Your task to perform on an android device: change the clock display to show seconds Image 0: 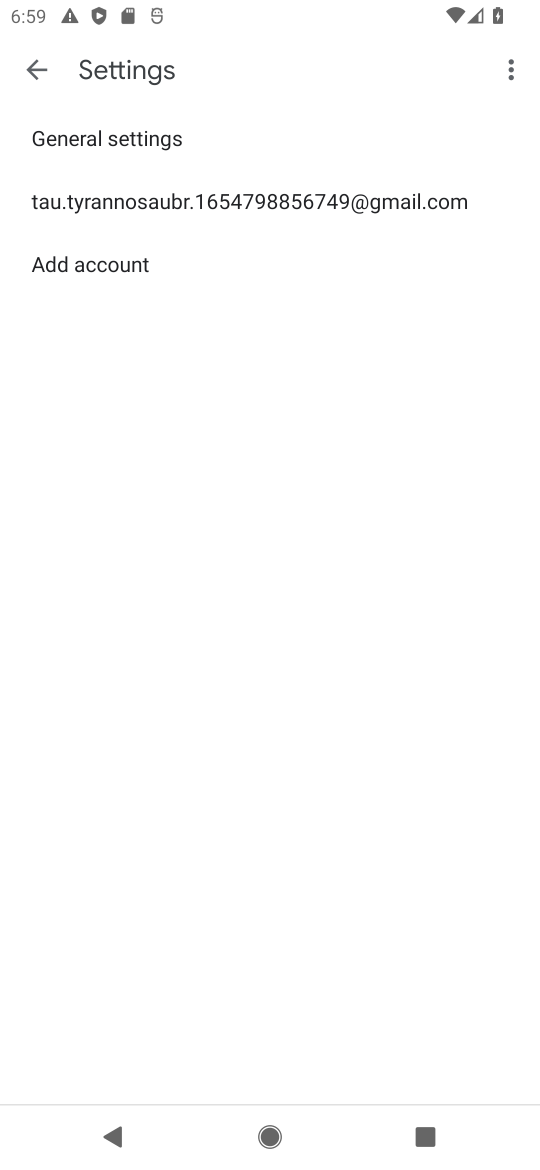
Step 0: press home button
Your task to perform on an android device: change the clock display to show seconds Image 1: 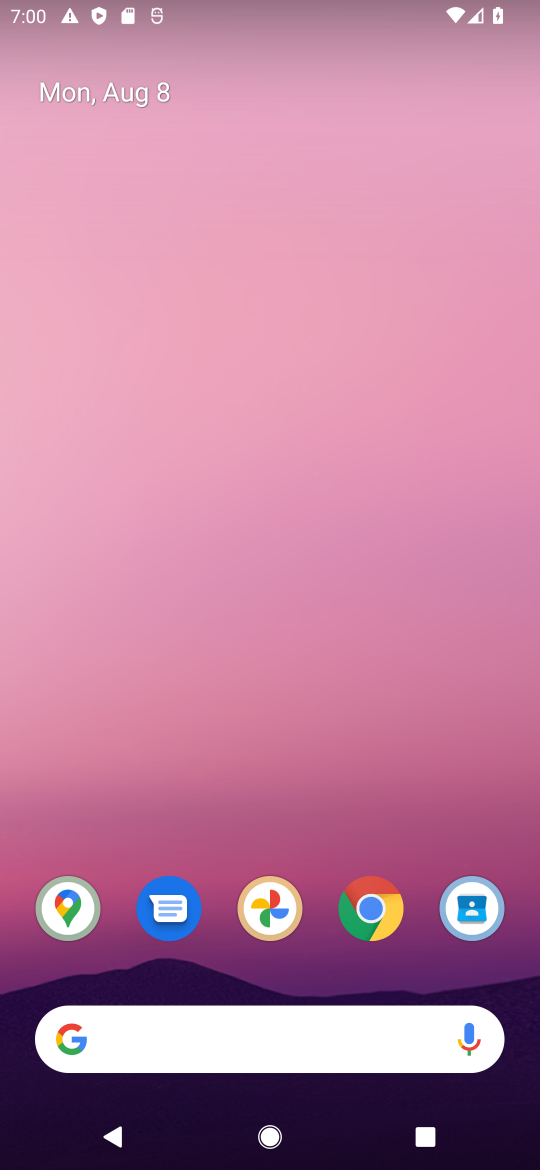
Step 1: drag from (266, 449) to (245, 215)
Your task to perform on an android device: change the clock display to show seconds Image 2: 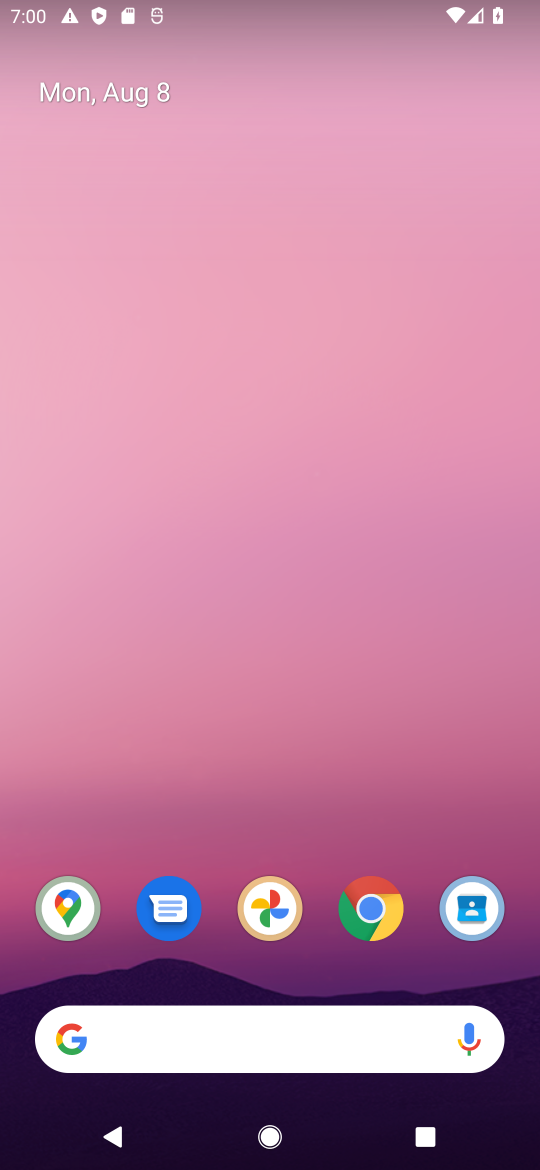
Step 2: drag from (211, 971) to (172, 338)
Your task to perform on an android device: change the clock display to show seconds Image 3: 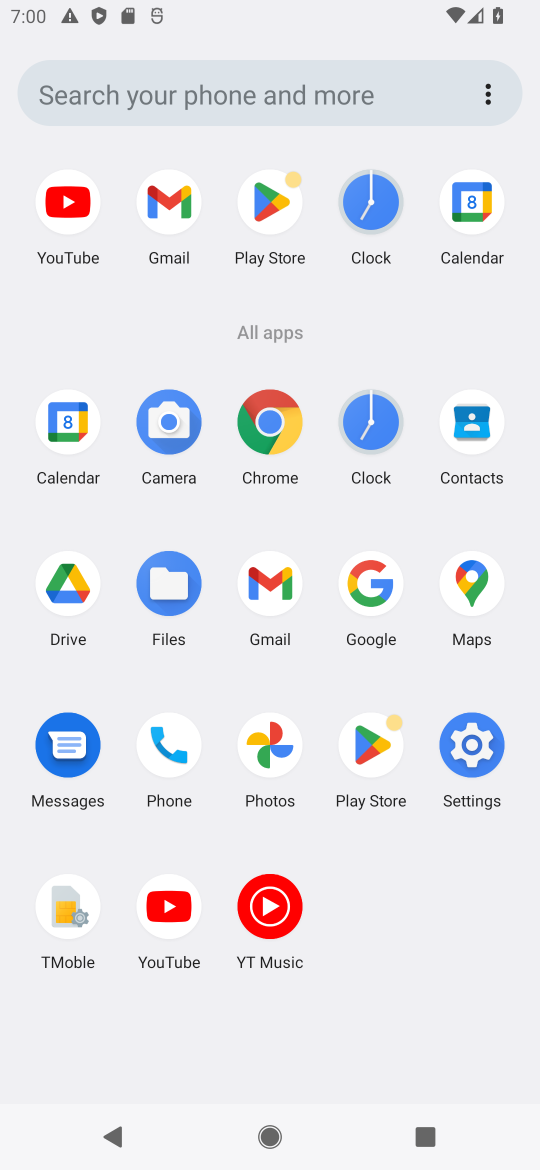
Step 3: click (380, 400)
Your task to perform on an android device: change the clock display to show seconds Image 4: 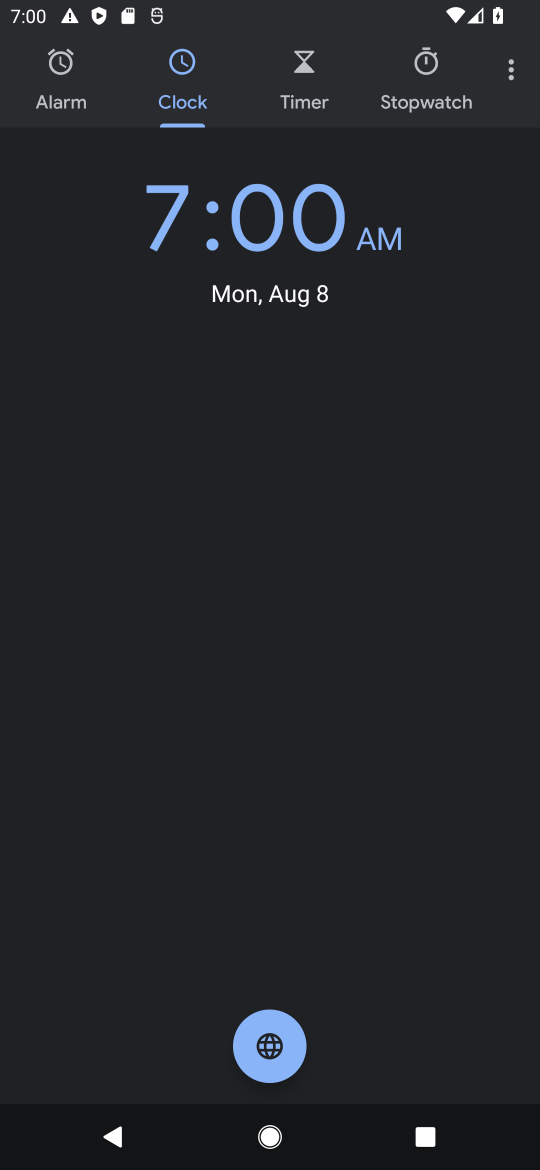
Step 4: click (513, 91)
Your task to perform on an android device: change the clock display to show seconds Image 5: 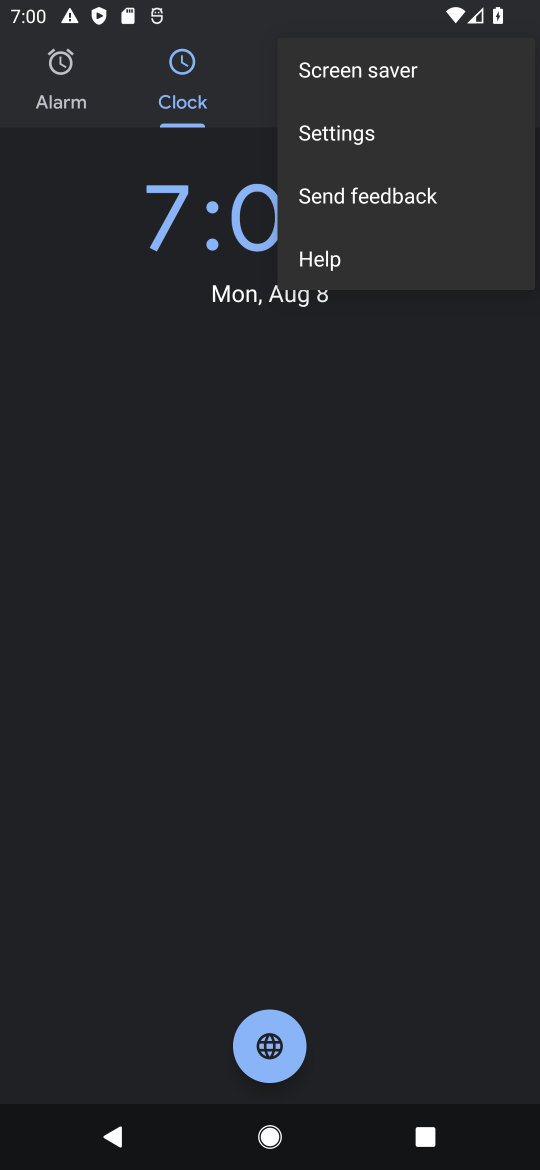
Step 5: click (365, 146)
Your task to perform on an android device: change the clock display to show seconds Image 6: 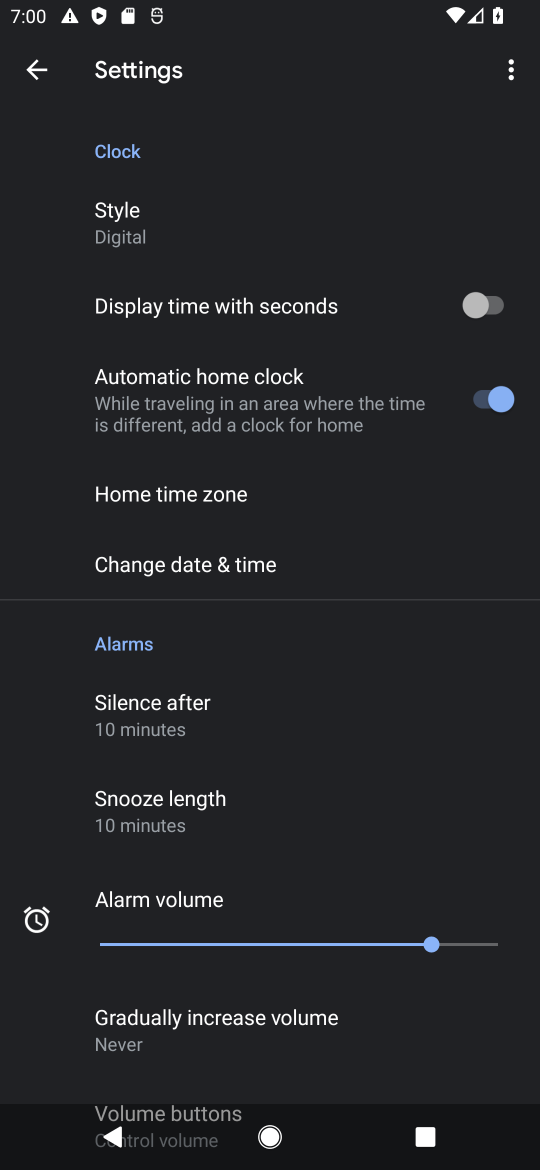
Step 6: click (497, 316)
Your task to perform on an android device: change the clock display to show seconds Image 7: 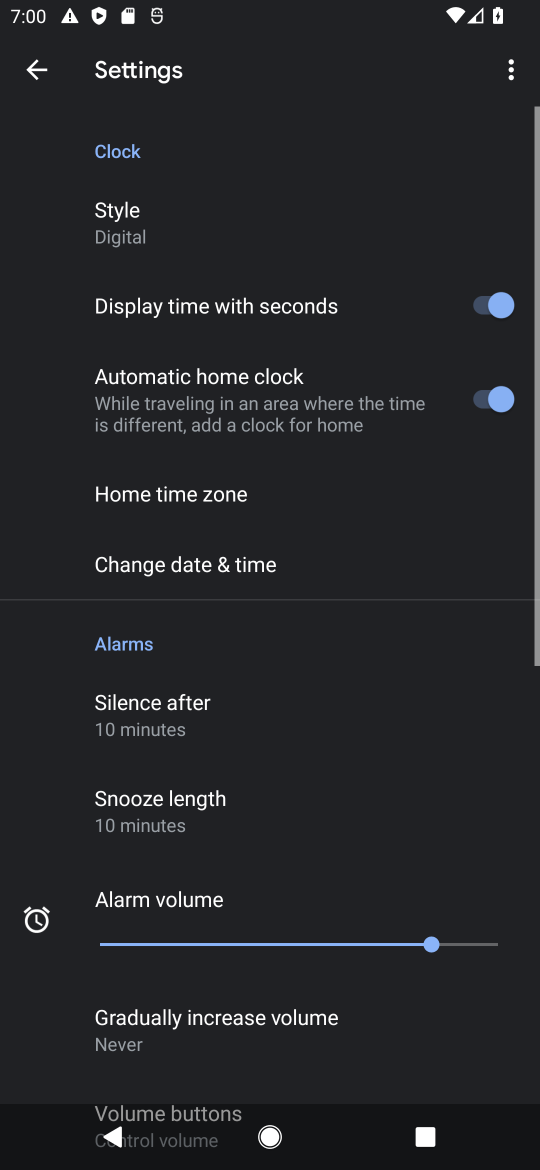
Step 7: task complete